Your task to perform on an android device: Open calendar and show me the third week of next month Image 0: 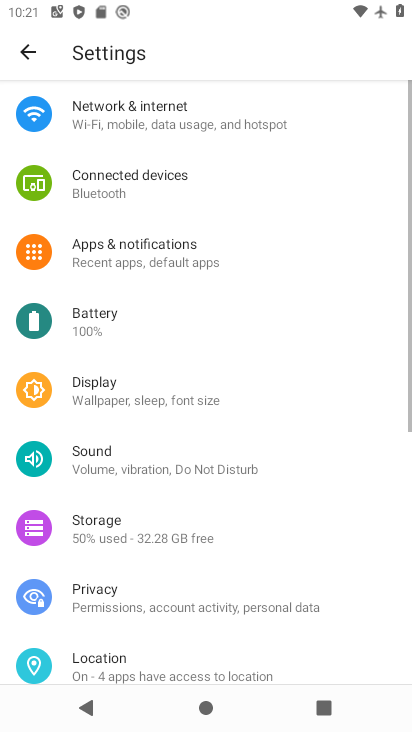
Step 0: press home button
Your task to perform on an android device: Open calendar and show me the third week of next month Image 1: 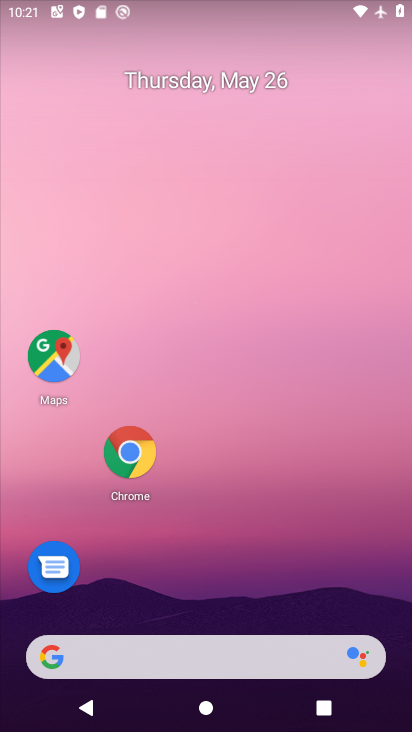
Step 1: drag from (184, 646) to (295, 33)
Your task to perform on an android device: Open calendar and show me the third week of next month Image 2: 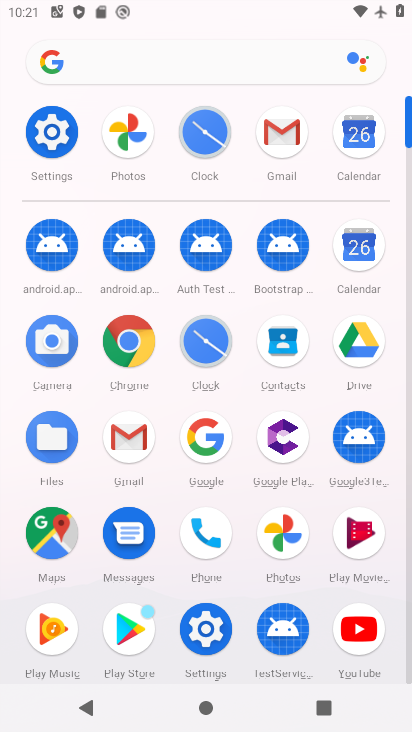
Step 2: click (363, 137)
Your task to perform on an android device: Open calendar and show me the third week of next month Image 3: 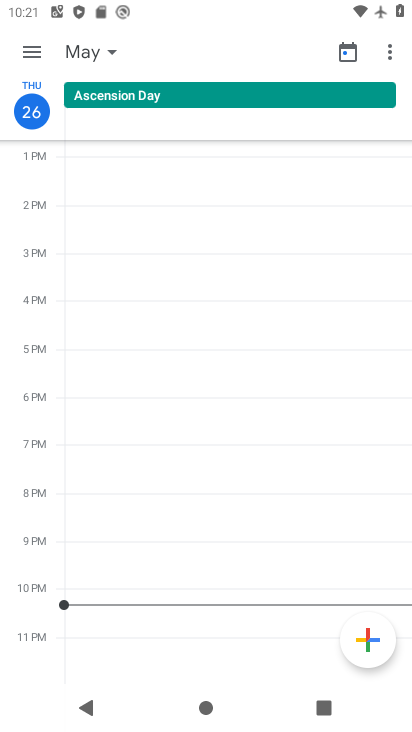
Step 3: click (85, 56)
Your task to perform on an android device: Open calendar and show me the third week of next month Image 4: 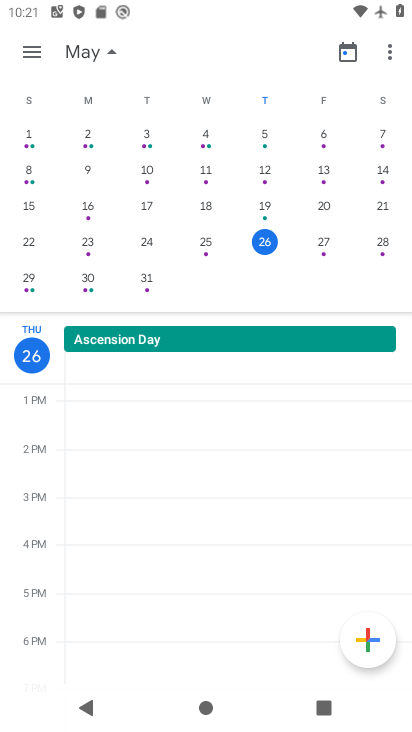
Step 4: drag from (369, 190) to (54, 158)
Your task to perform on an android device: Open calendar and show me the third week of next month Image 5: 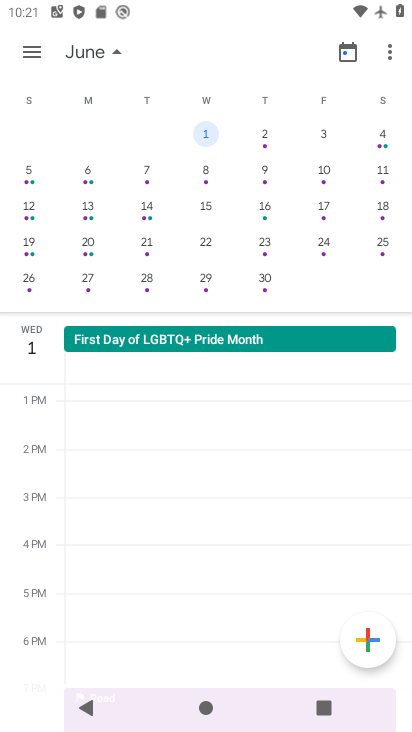
Step 5: click (29, 207)
Your task to perform on an android device: Open calendar and show me the third week of next month Image 6: 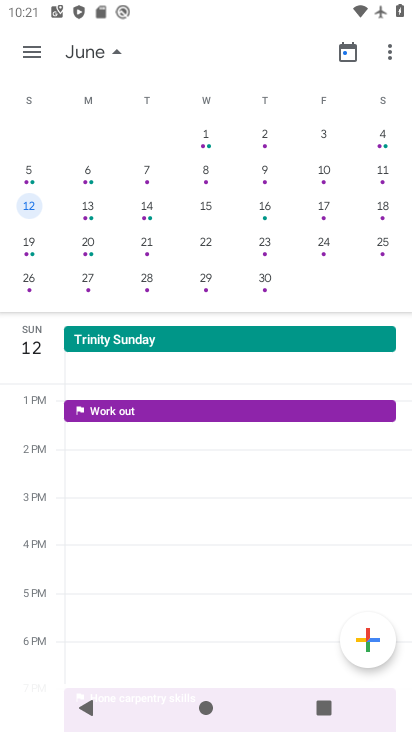
Step 6: click (34, 50)
Your task to perform on an android device: Open calendar and show me the third week of next month Image 7: 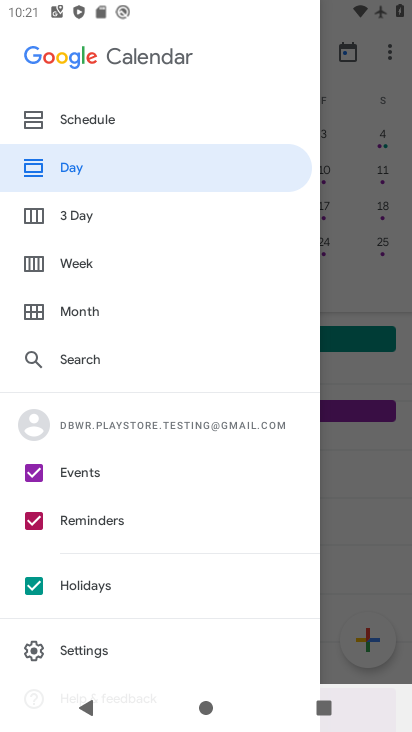
Step 7: click (90, 267)
Your task to perform on an android device: Open calendar and show me the third week of next month Image 8: 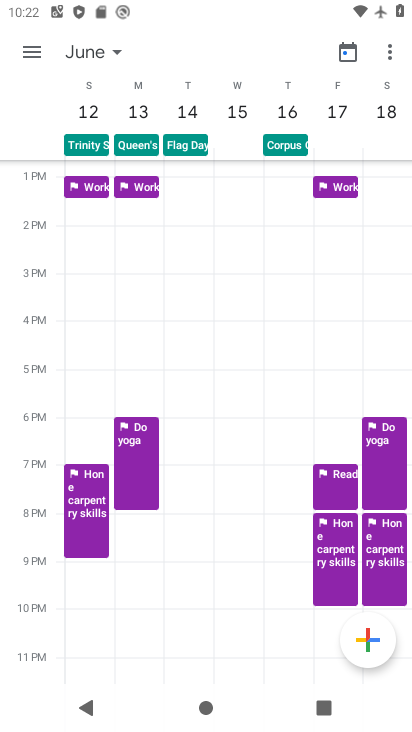
Step 8: task complete